Your task to perform on an android device: Open Maps and search for coffee Image 0: 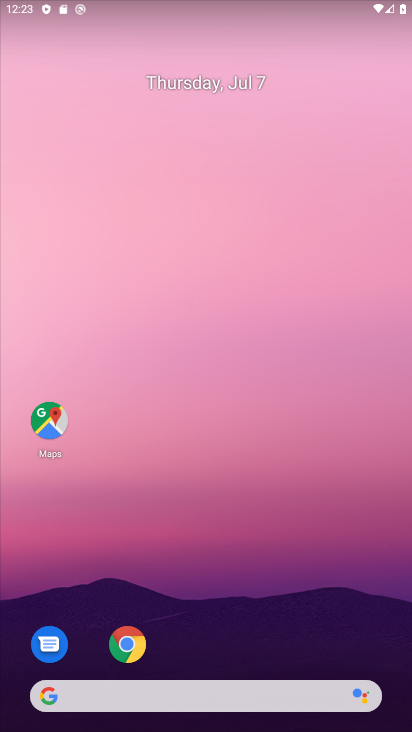
Step 0: click (58, 433)
Your task to perform on an android device: Open Maps and search for coffee Image 1: 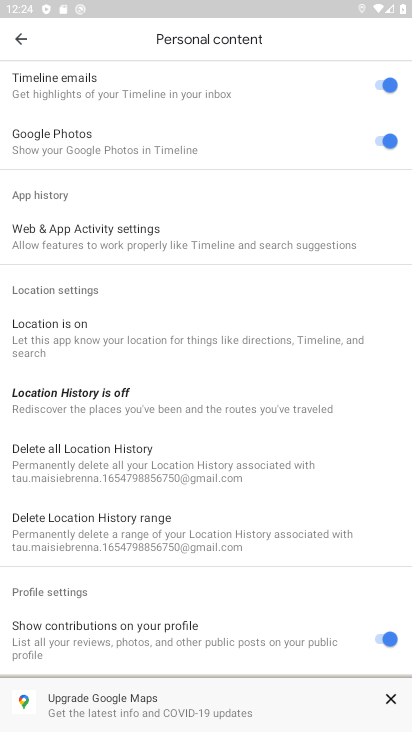
Step 1: press home button
Your task to perform on an android device: Open Maps and search for coffee Image 2: 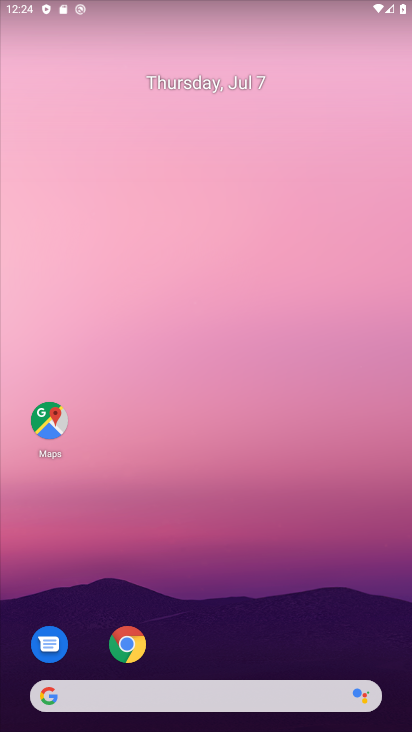
Step 2: click (46, 423)
Your task to perform on an android device: Open Maps and search for coffee Image 3: 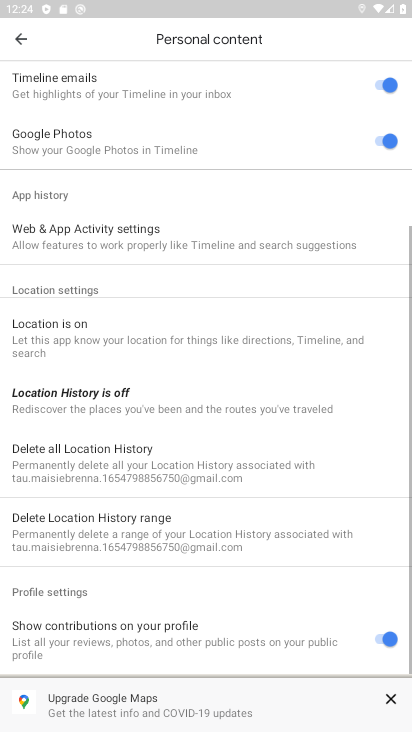
Step 3: click (10, 43)
Your task to perform on an android device: Open Maps and search for coffee Image 4: 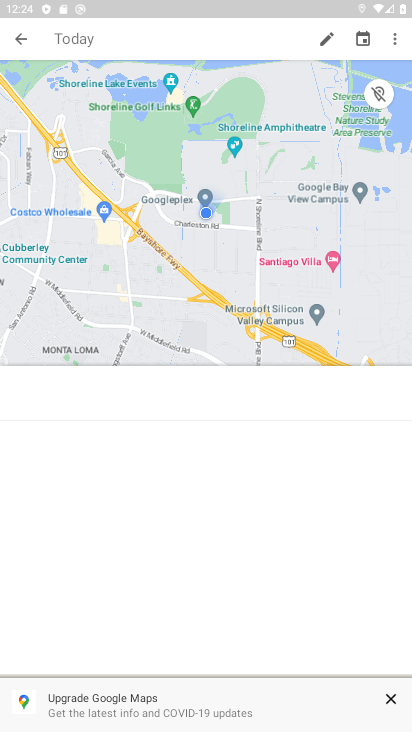
Step 4: click (30, 42)
Your task to perform on an android device: Open Maps and search for coffee Image 5: 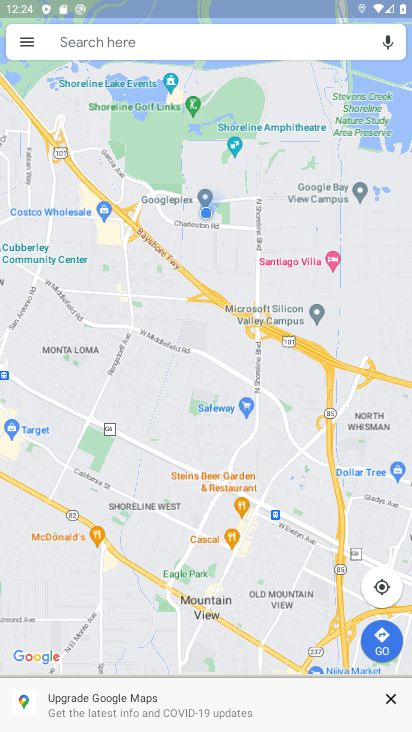
Step 5: click (164, 47)
Your task to perform on an android device: Open Maps and search for coffee Image 6: 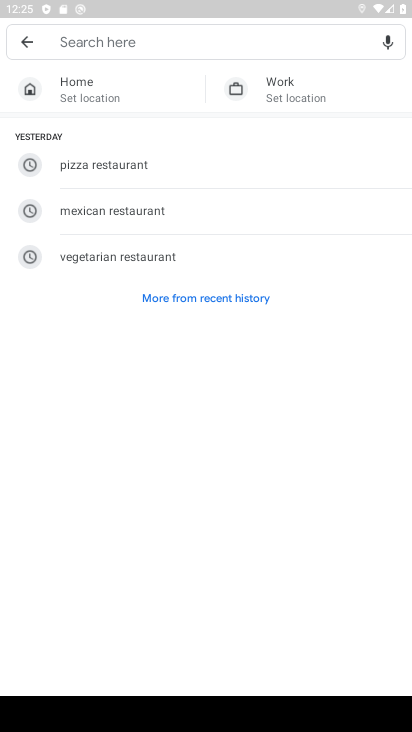
Step 6: type "coffee"
Your task to perform on an android device: Open Maps and search for coffee Image 7: 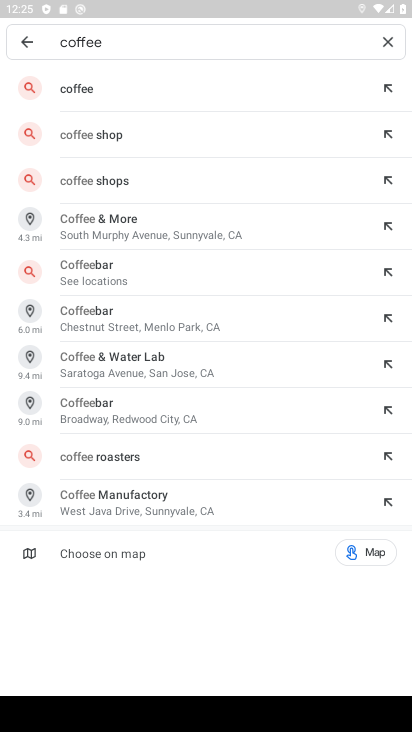
Step 7: click (76, 99)
Your task to perform on an android device: Open Maps and search for coffee Image 8: 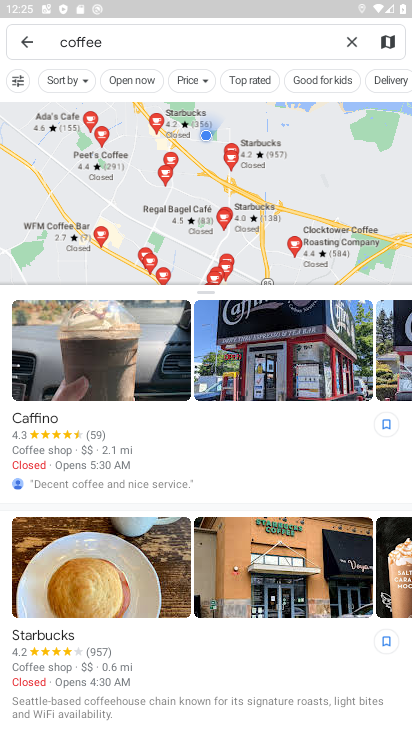
Step 8: task complete